Your task to perform on an android device: Go to notification settings Image 0: 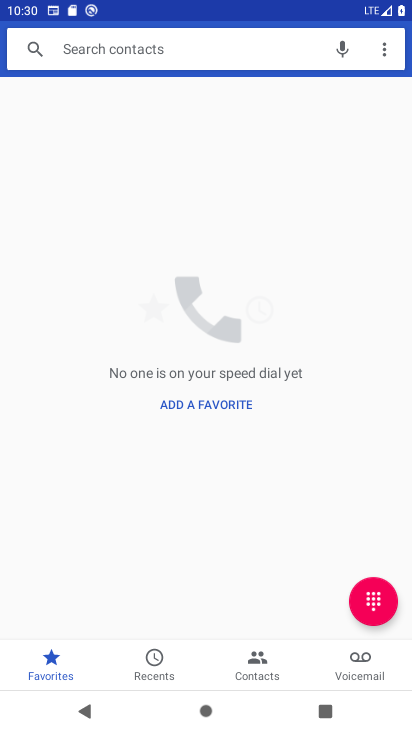
Step 0: press home button
Your task to perform on an android device: Go to notification settings Image 1: 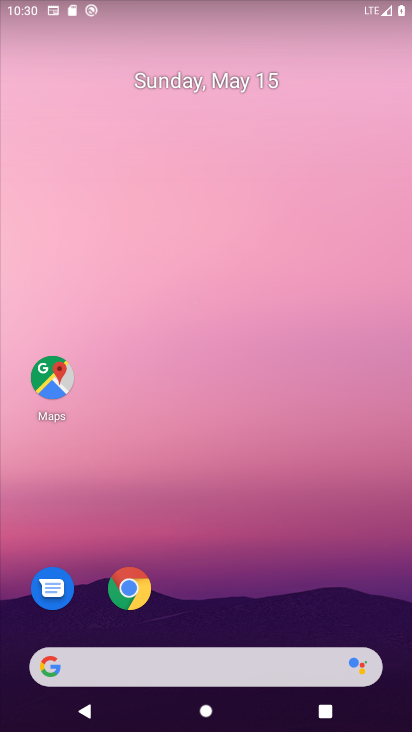
Step 1: drag from (230, 586) to (199, 231)
Your task to perform on an android device: Go to notification settings Image 2: 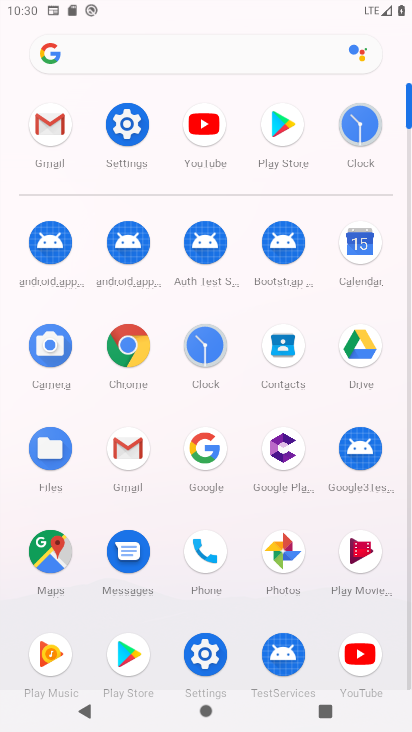
Step 2: click (130, 130)
Your task to perform on an android device: Go to notification settings Image 3: 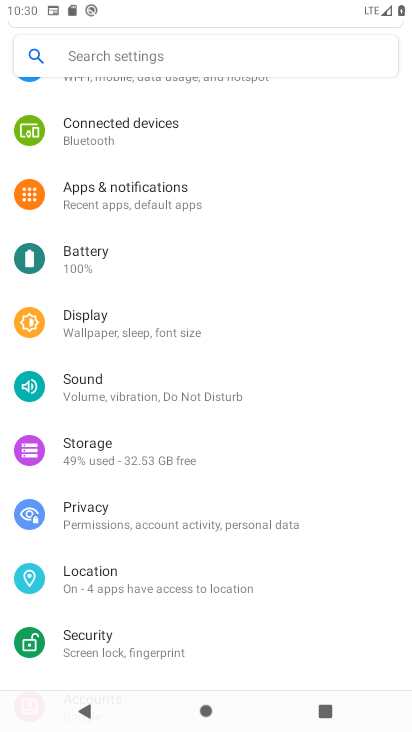
Step 3: click (163, 202)
Your task to perform on an android device: Go to notification settings Image 4: 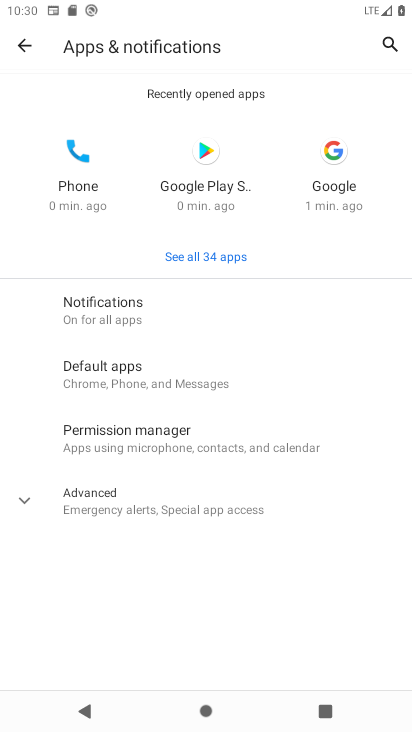
Step 4: task complete